Your task to perform on an android device: Go to Yahoo.com Image 0: 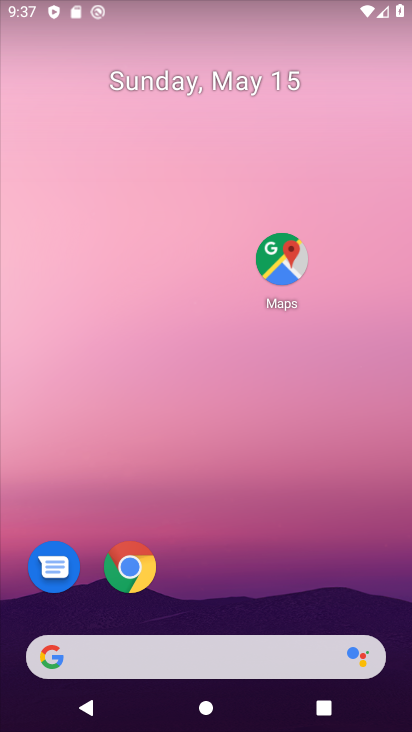
Step 0: drag from (254, 573) to (230, 102)
Your task to perform on an android device: Go to Yahoo.com Image 1: 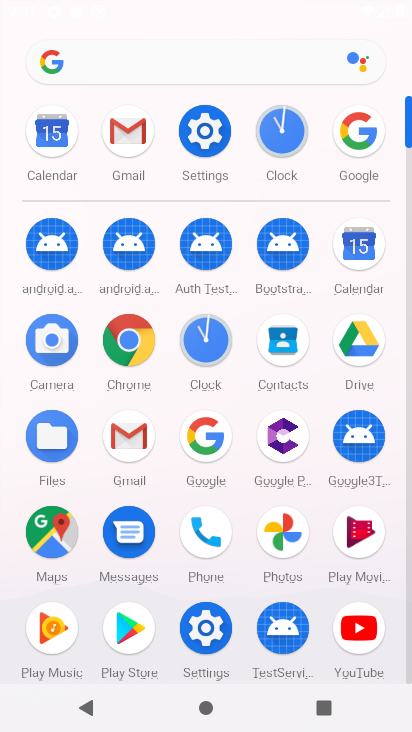
Step 1: click (130, 340)
Your task to perform on an android device: Go to Yahoo.com Image 2: 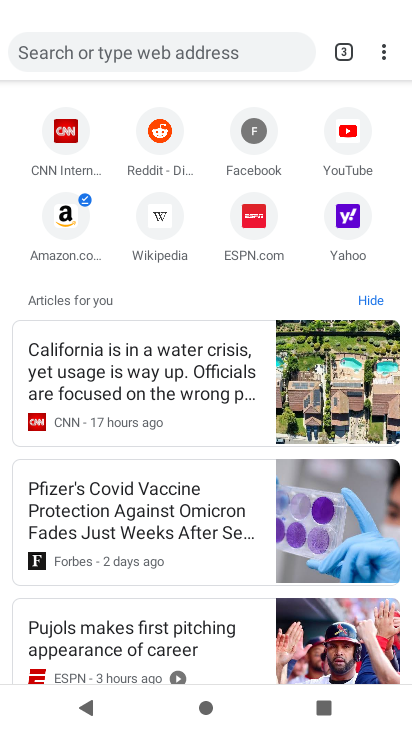
Step 2: click (342, 222)
Your task to perform on an android device: Go to Yahoo.com Image 3: 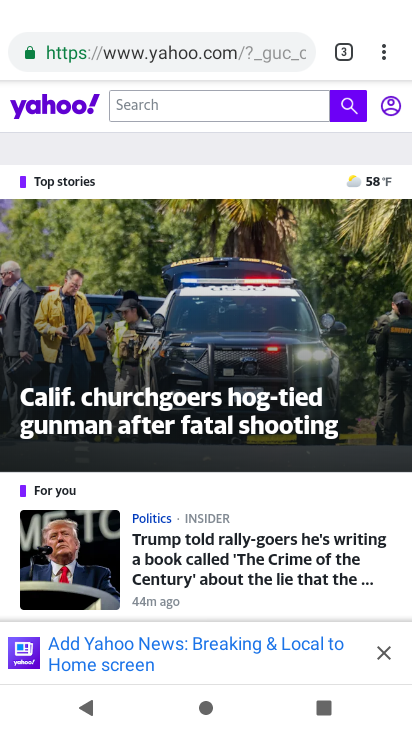
Step 3: task complete